Your task to perform on an android device: Open sound settings Image 0: 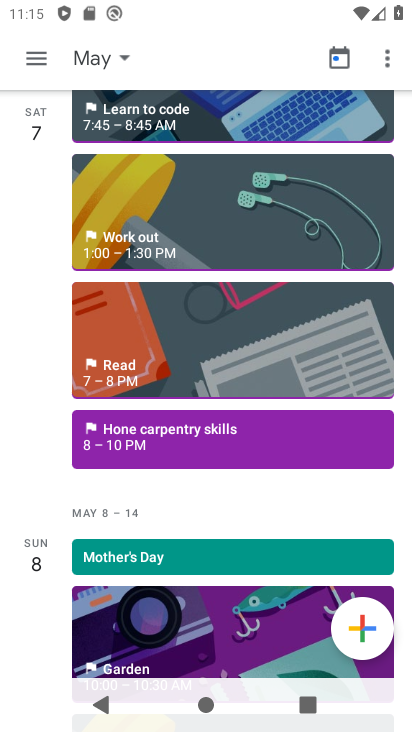
Step 0: press home button
Your task to perform on an android device: Open sound settings Image 1: 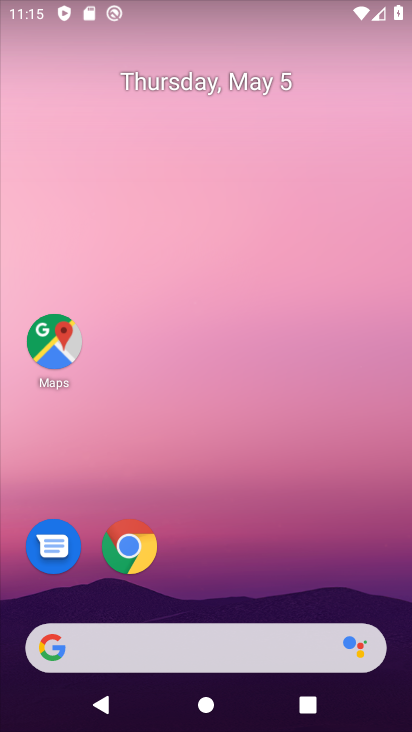
Step 1: drag from (220, 617) to (222, 48)
Your task to perform on an android device: Open sound settings Image 2: 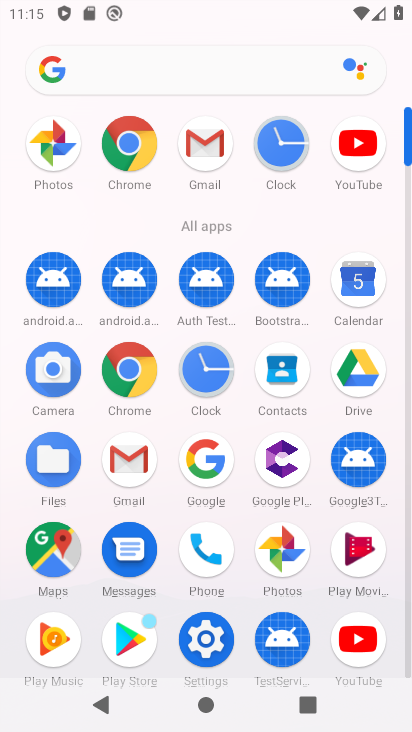
Step 2: click (188, 642)
Your task to perform on an android device: Open sound settings Image 3: 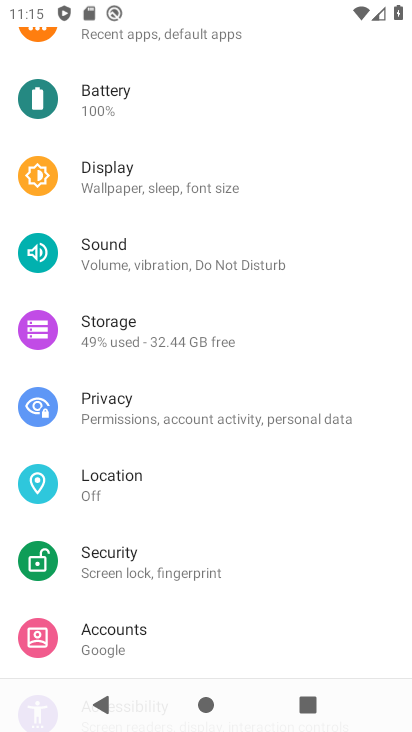
Step 3: click (93, 242)
Your task to perform on an android device: Open sound settings Image 4: 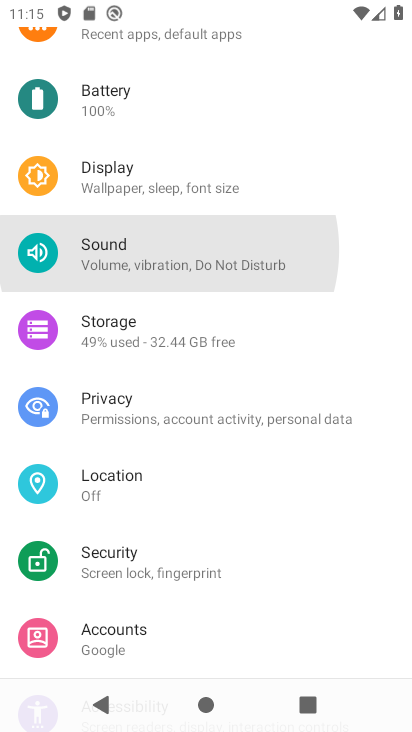
Step 4: click (93, 242)
Your task to perform on an android device: Open sound settings Image 5: 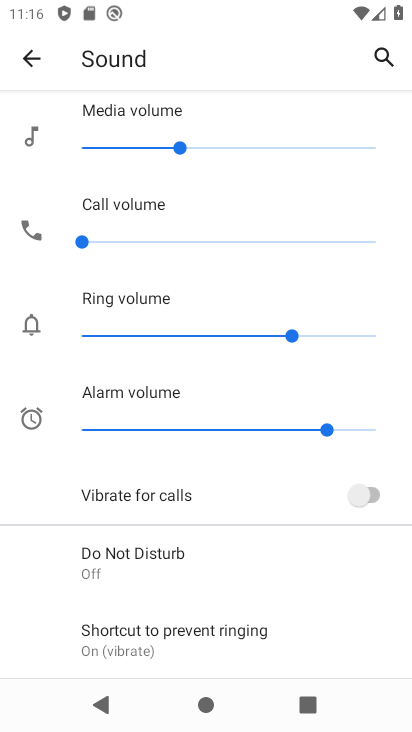
Step 5: drag from (286, 564) to (68, 129)
Your task to perform on an android device: Open sound settings Image 6: 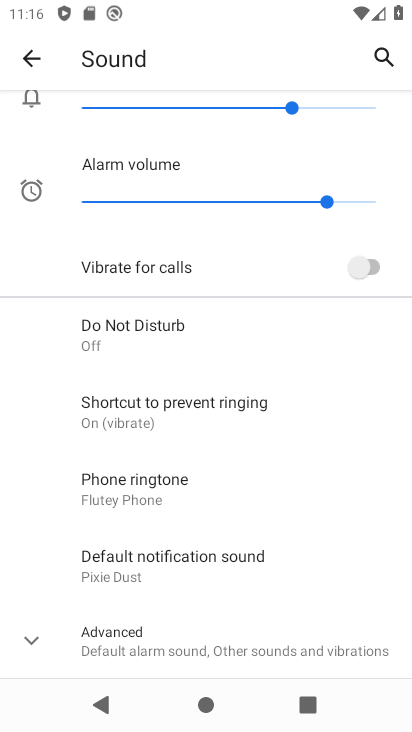
Step 6: click (75, 626)
Your task to perform on an android device: Open sound settings Image 7: 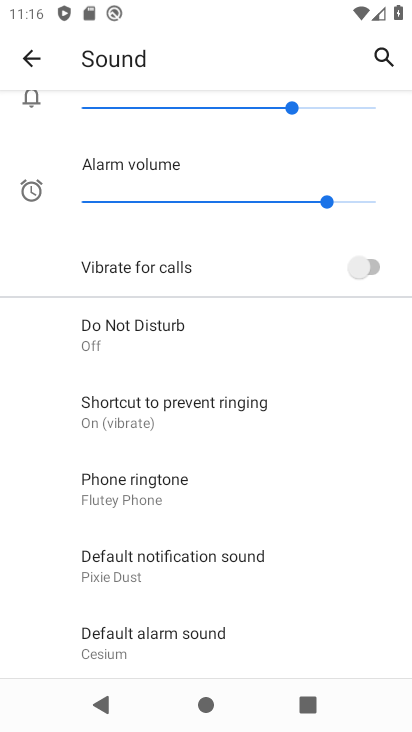
Step 7: task complete